Your task to perform on an android device: Search for Italian restaurants on Maps Image 0: 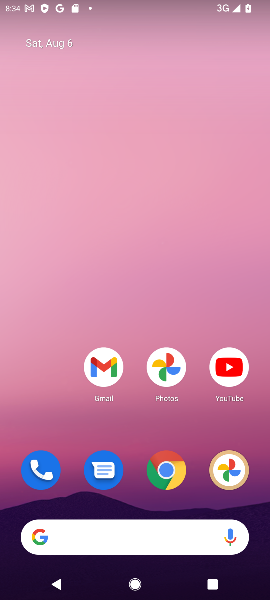
Step 0: drag from (162, 442) to (173, 137)
Your task to perform on an android device: Search for Italian restaurants on Maps Image 1: 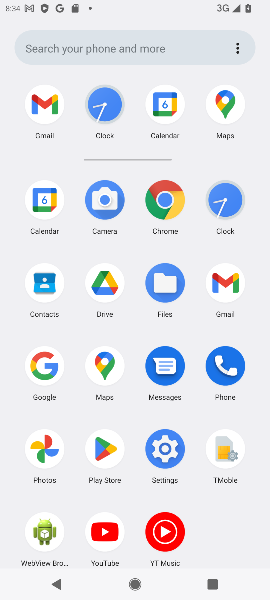
Step 1: click (106, 379)
Your task to perform on an android device: Search for Italian restaurants on Maps Image 2: 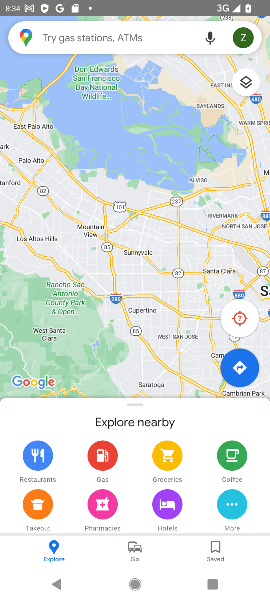
Step 2: click (181, 42)
Your task to perform on an android device: Search for Italian restaurants on Maps Image 3: 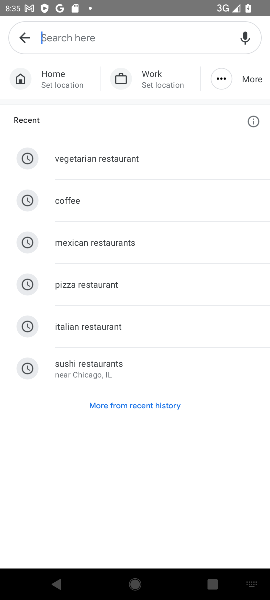
Step 3: click (100, 328)
Your task to perform on an android device: Search for Italian restaurants on Maps Image 4: 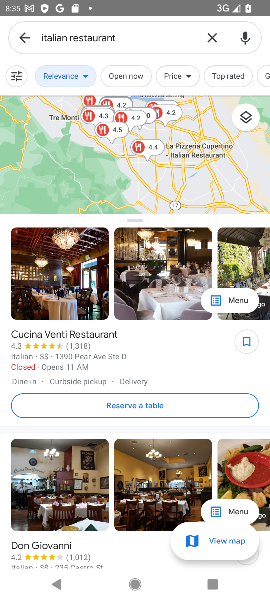
Step 4: task complete